Your task to perform on an android device: Open calendar and show me the first week of next month Image 0: 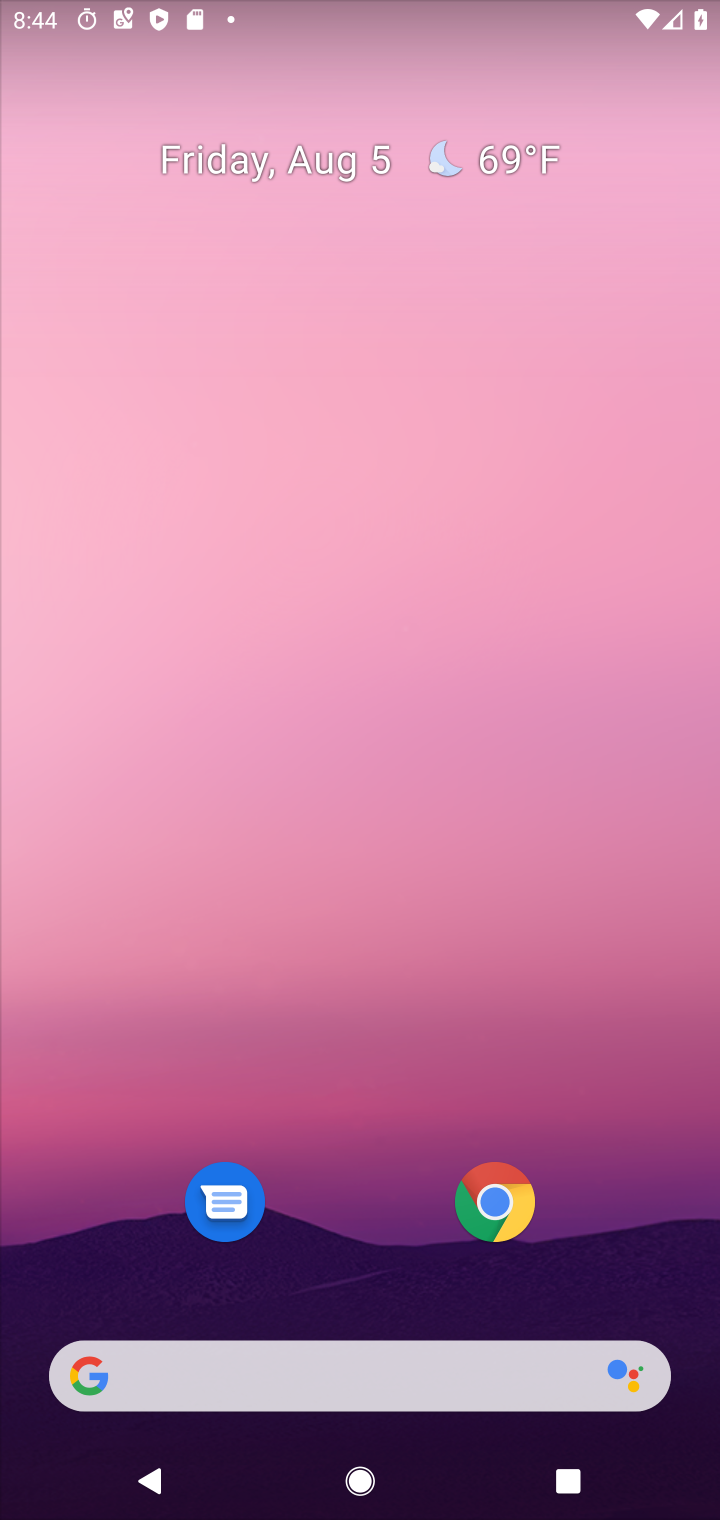
Step 0: press home button
Your task to perform on an android device: Open calendar and show me the first week of next month Image 1: 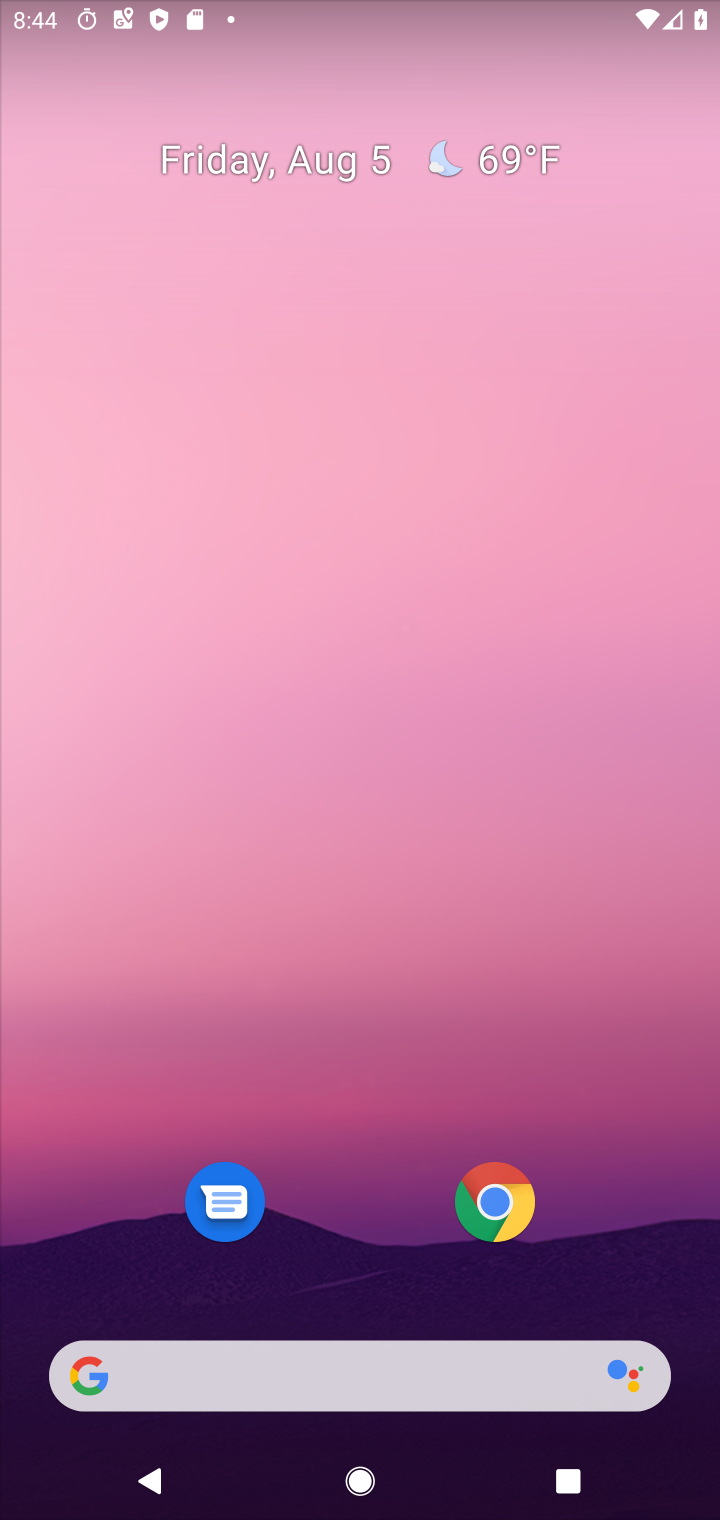
Step 1: drag from (371, 1206) to (371, 234)
Your task to perform on an android device: Open calendar and show me the first week of next month Image 2: 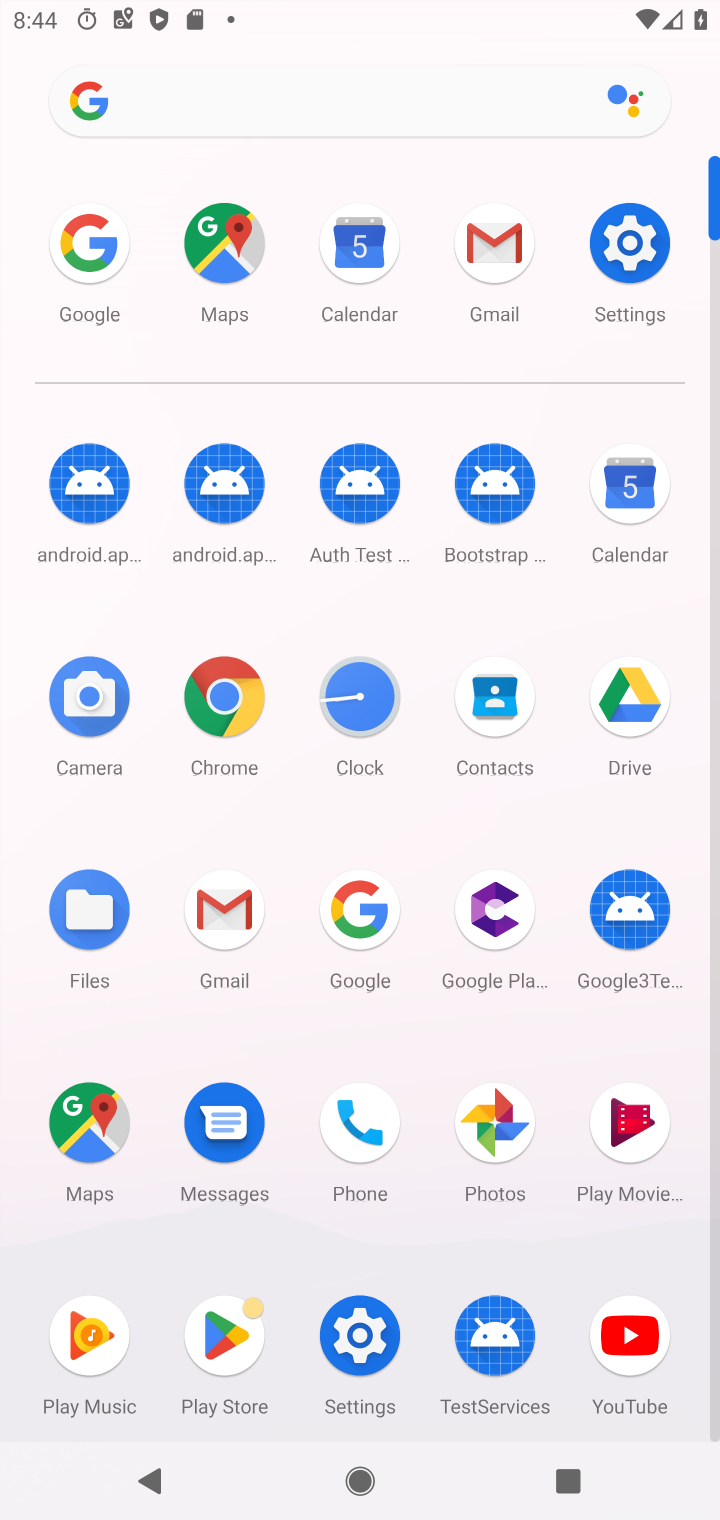
Step 2: click (618, 511)
Your task to perform on an android device: Open calendar and show me the first week of next month Image 3: 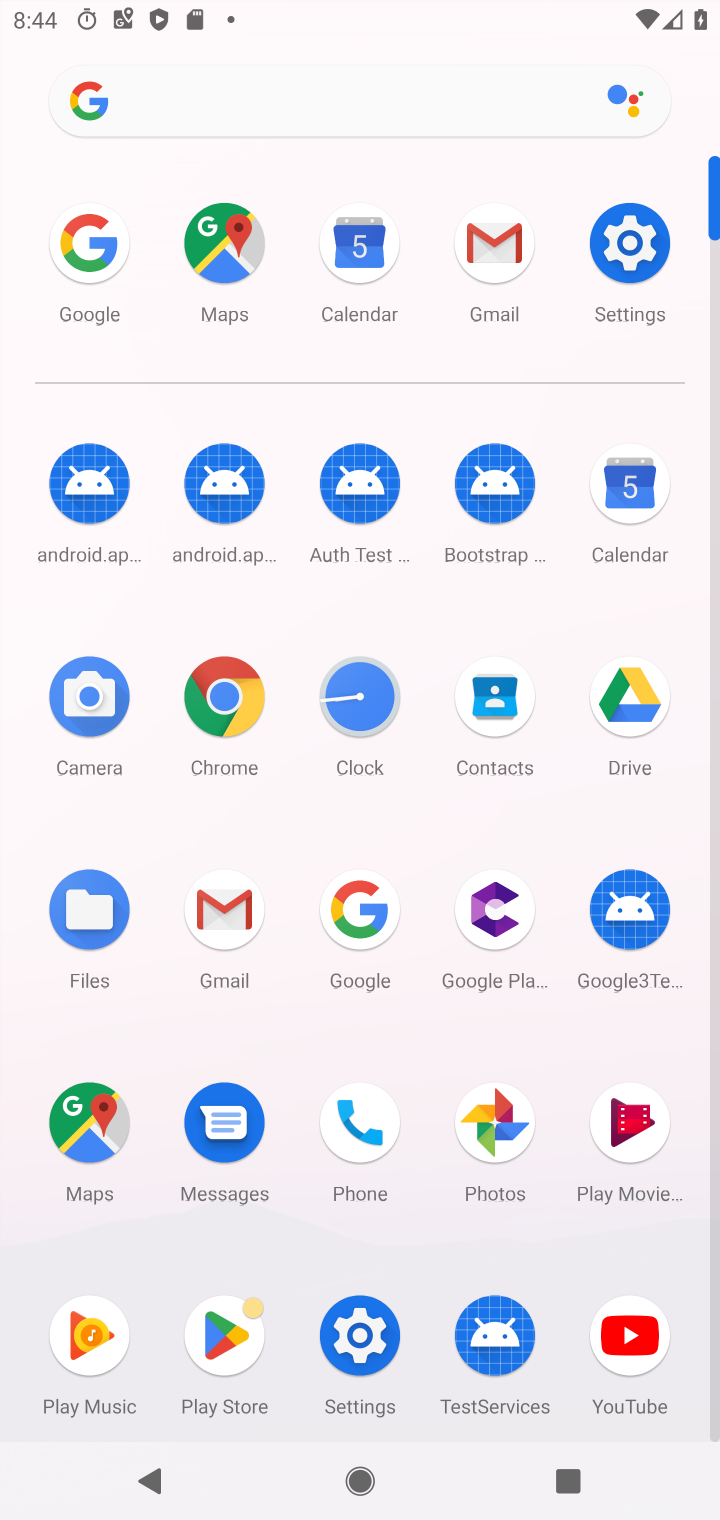
Step 3: click (618, 511)
Your task to perform on an android device: Open calendar and show me the first week of next month Image 4: 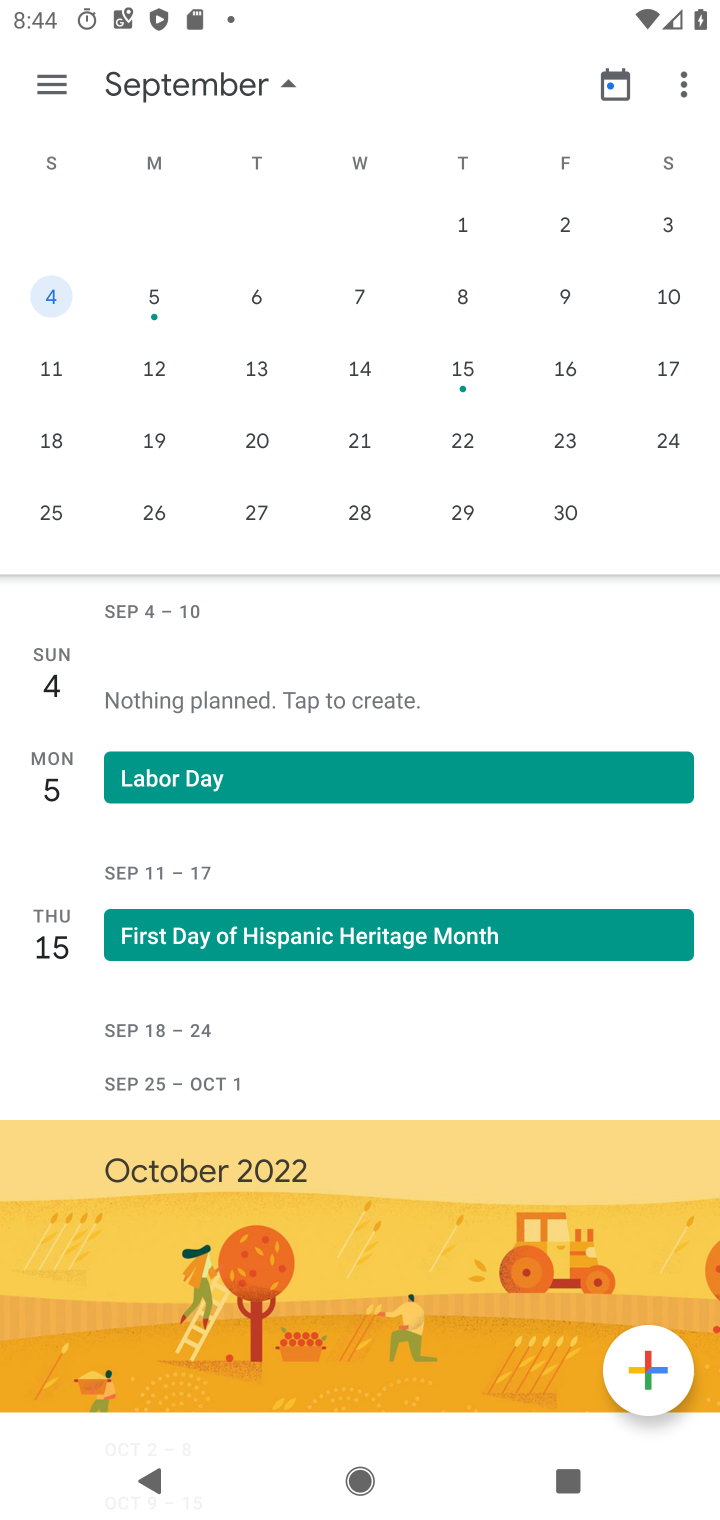
Step 4: click (466, 221)
Your task to perform on an android device: Open calendar and show me the first week of next month Image 5: 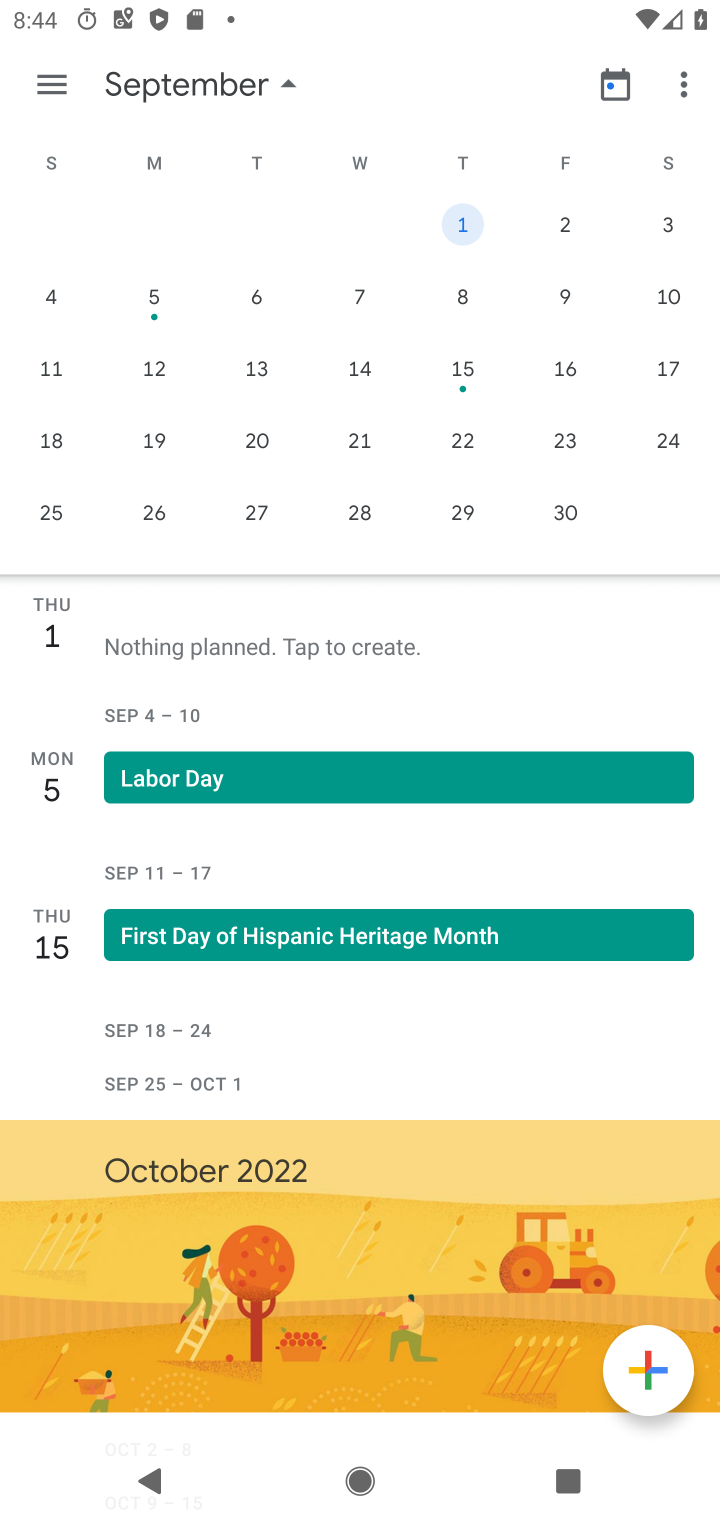
Step 5: task complete